Your task to perform on an android device: change notifications settings Image 0: 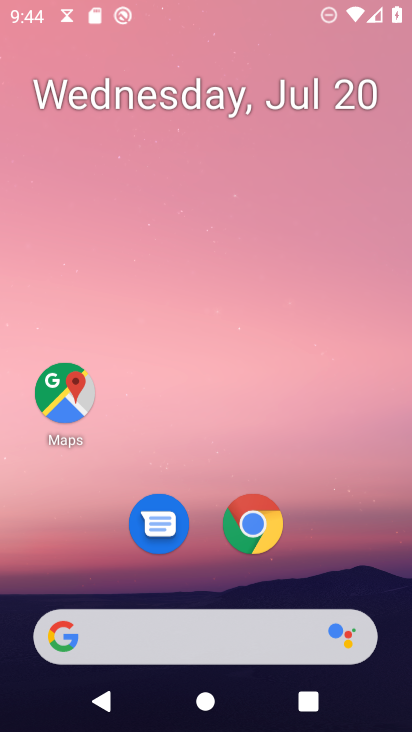
Step 0: press home button
Your task to perform on an android device: change notifications settings Image 1: 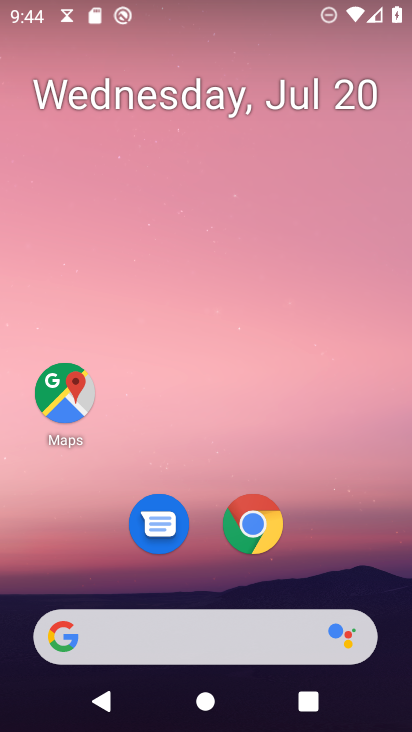
Step 1: drag from (183, 632) to (340, 142)
Your task to perform on an android device: change notifications settings Image 2: 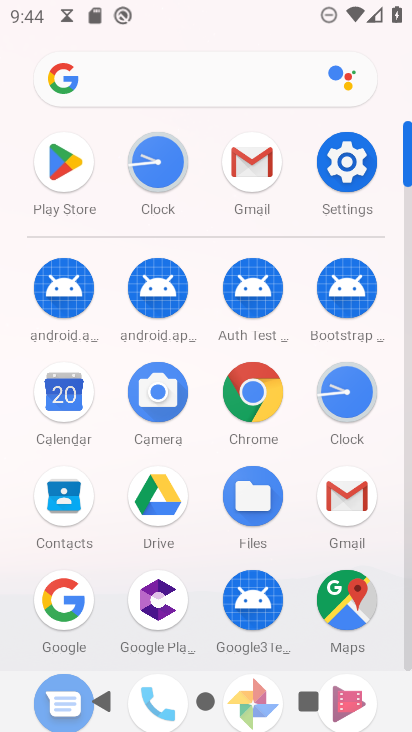
Step 2: click (352, 160)
Your task to perform on an android device: change notifications settings Image 3: 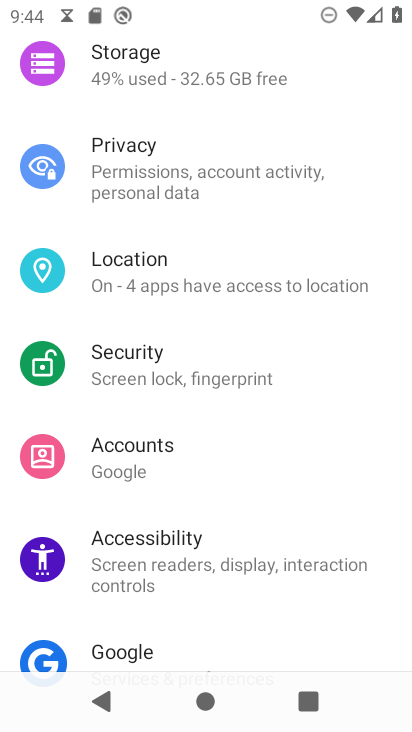
Step 3: drag from (278, 119) to (226, 606)
Your task to perform on an android device: change notifications settings Image 4: 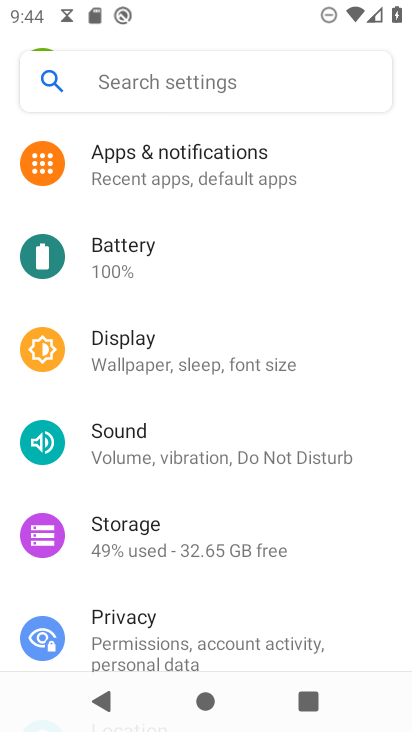
Step 4: click (229, 159)
Your task to perform on an android device: change notifications settings Image 5: 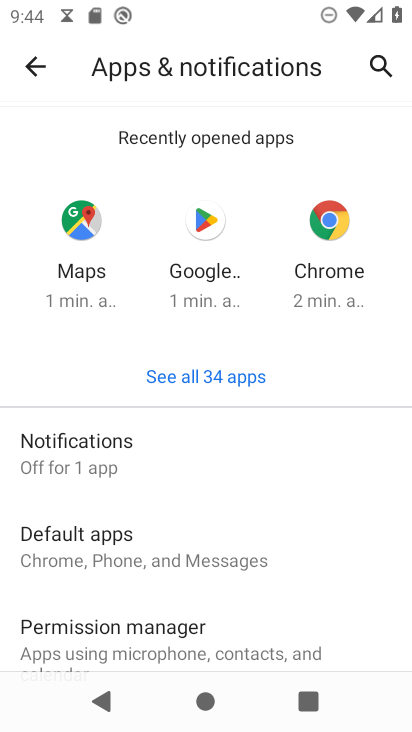
Step 5: click (112, 460)
Your task to perform on an android device: change notifications settings Image 6: 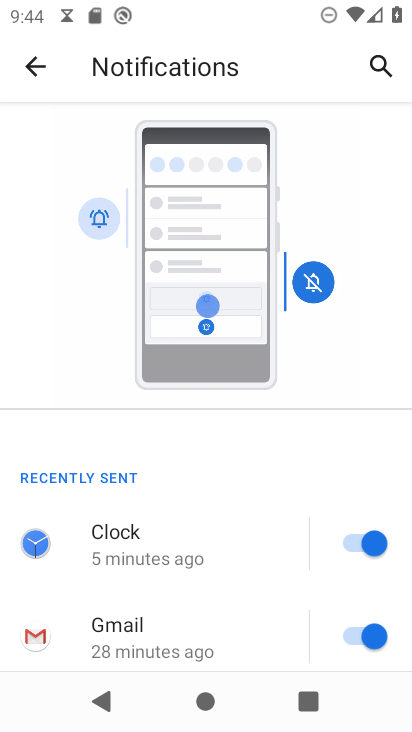
Step 6: drag from (197, 594) to (261, 368)
Your task to perform on an android device: change notifications settings Image 7: 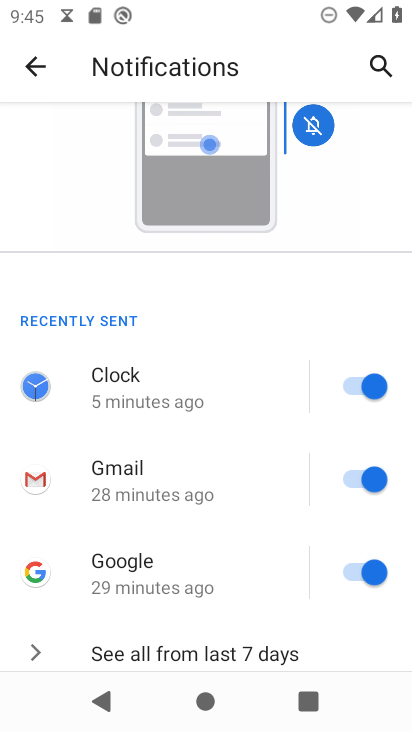
Step 7: drag from (192, 608) to (340, 204)
Your task to perform on an android device: change notifications settings Image 8: 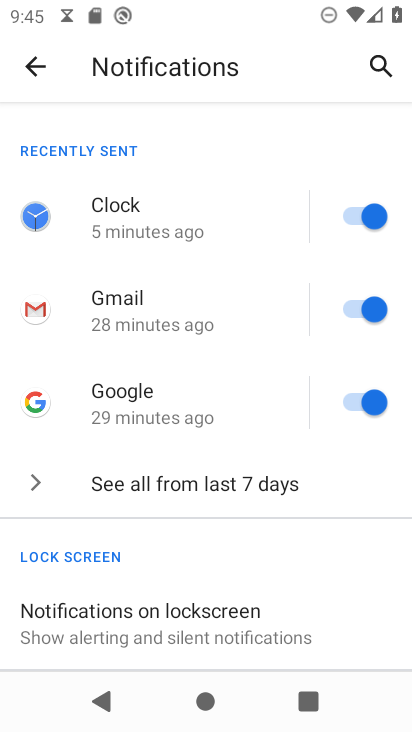
Step 8: click (362, 215)
Your task to perform on an android device: change notifications settings Image 9: 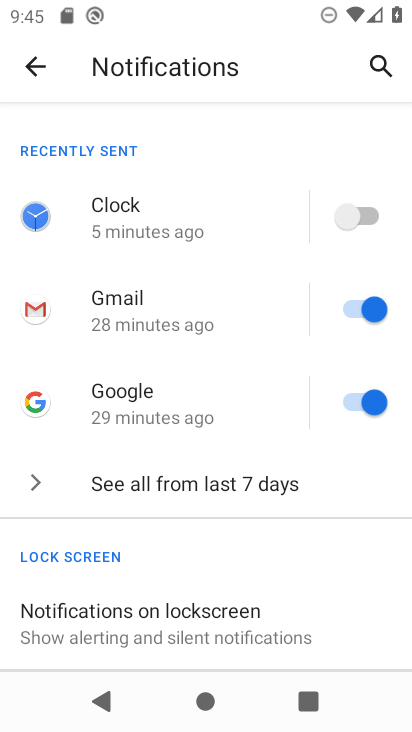
Step 9: task complete